Your task to perform on an android device: What's on my calendar today? Image 0: 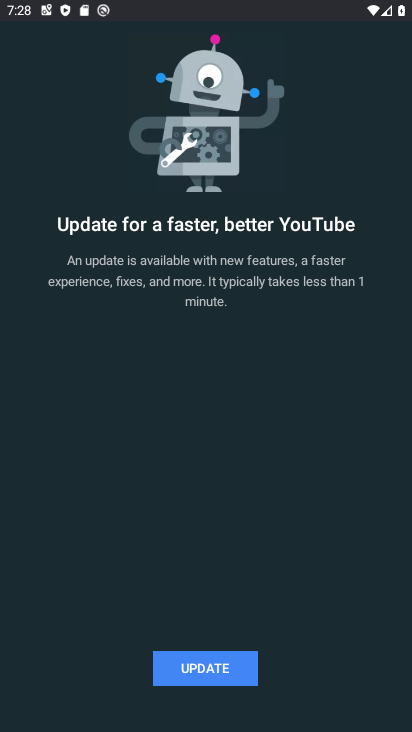
Step 0: press home button
Your task to perform on an android device: What's on my calendar today? Image 1: 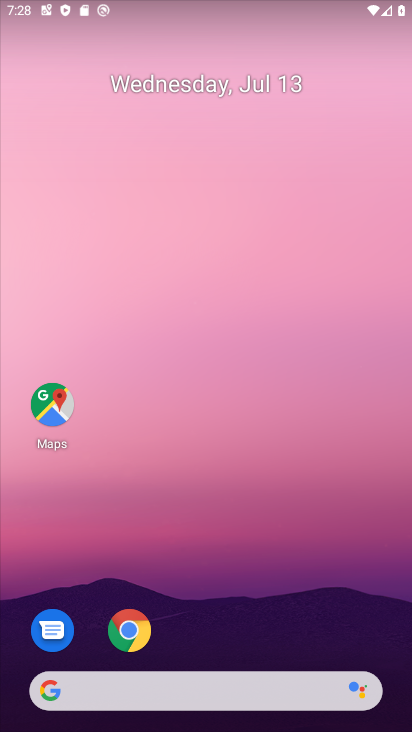
Step 1: drag from (346, 628) to (400, 76)
Your task to perform on an android device: What's on my calendar today? Image 2: 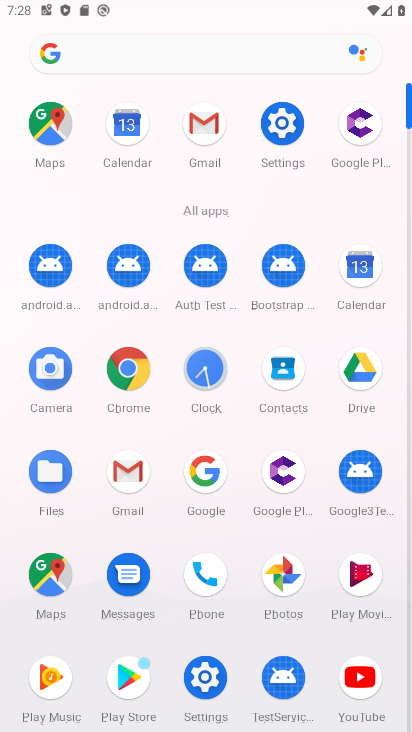
Step 2: click (360, 268)
Your task to perform on an android device: What's on my calendar today? Image 3: 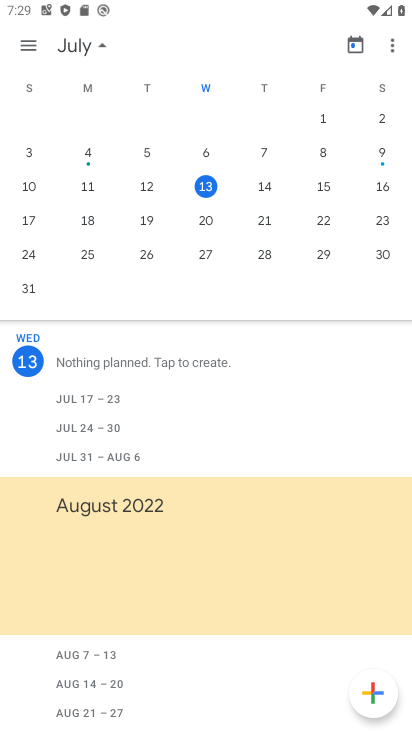
Step 3: task complete